Your task to perform on an android device: toggle priority inbox in the gmail app Image 0: 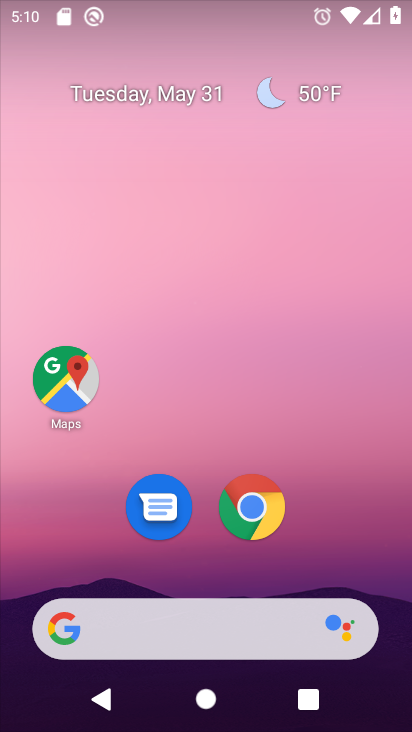
Step 0: drag from (347, 512) to (263, 26)
Your task to perform on an android device: toggle priority inbox in the gmail app Image 1: 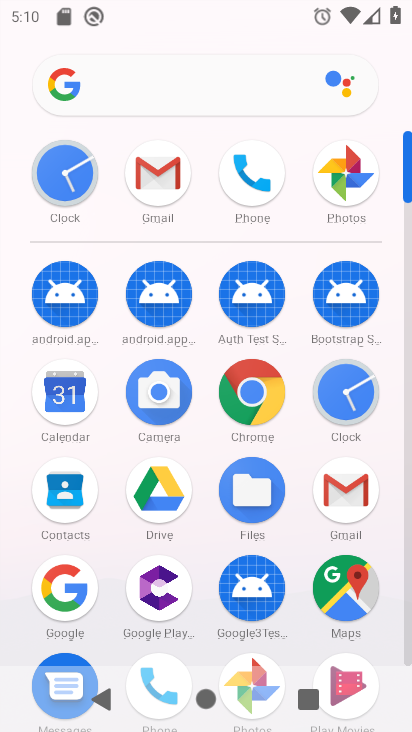
Step 1: click (169, 178)
Your task to perform on an android device: toggle priority inbox in the gmail app Image 2: 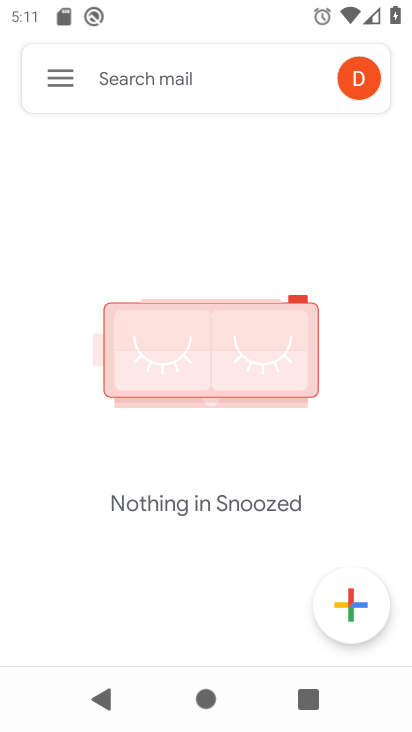
Step 2: click (60, 80)
Your task to perform on an android device: toggle priority inbox in the gmail app Image 3: 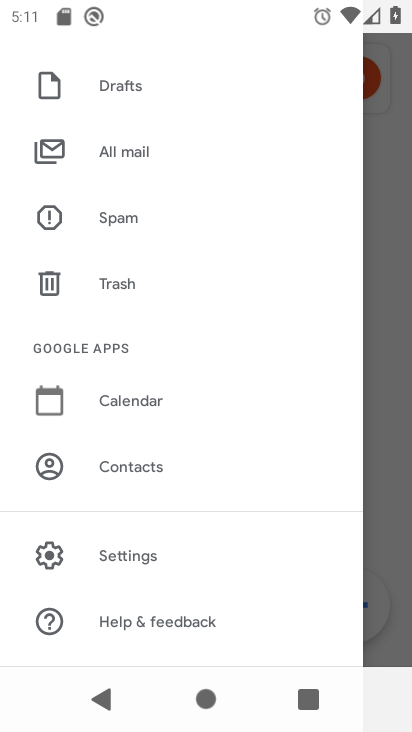
Step 3: click (149, 552)
Your task to perform on an android device: toggle priority inbox in the gmail app Image 4: 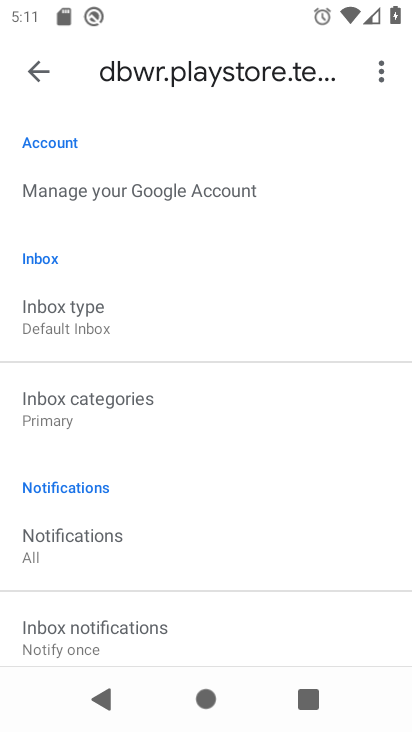
Step 4: click (98, 319)
Your task to perform on an android device: toggle priority inbox in the gmail app Image 5: 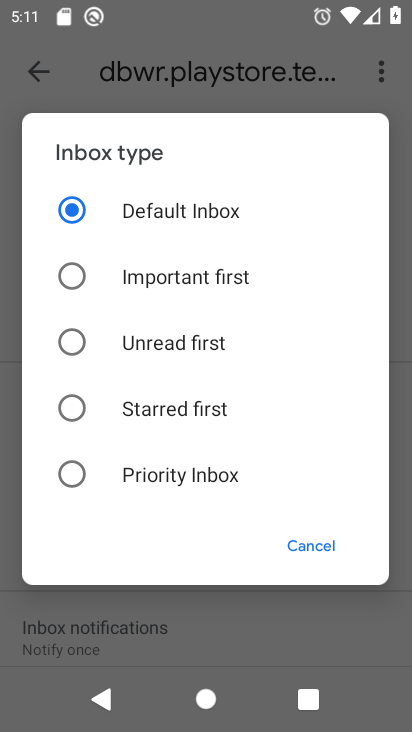
Step 5: click (73, 472)
Your task to perform on an android device: toggle priority inbox in the gmail app Image 6: 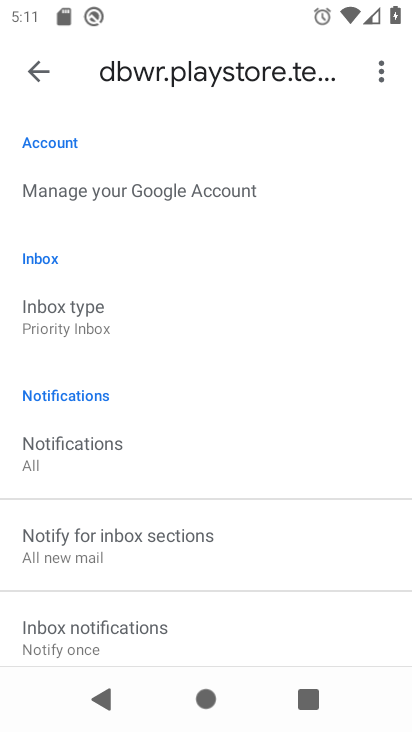
Step 6: task complete